Your task to perform on an android device: turn off location Image 0: 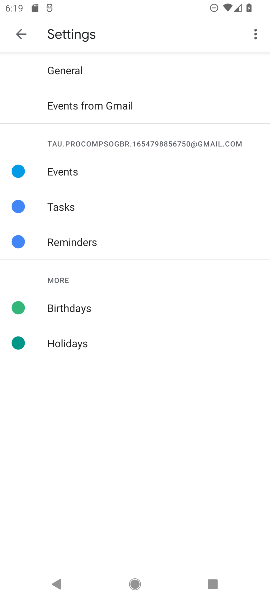
Step 0: press home button
Your task to perform on an android device: turn off location Image 1: 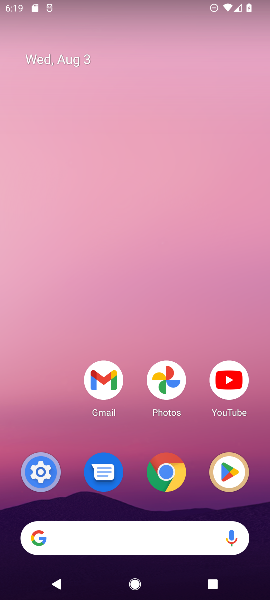
Step 1: drag from (193, 473) to (74, 37)
Your task to perform on an android device: turn off location Image 2: 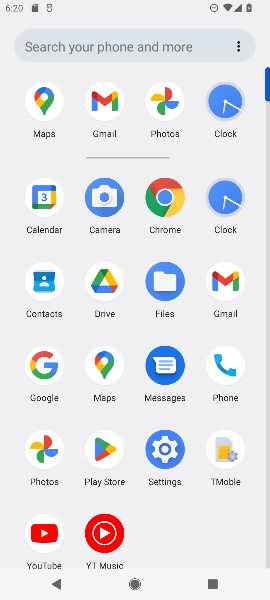
Step 2: click (165, 460)
Your task to perform on an android device: turn off location Image 3: 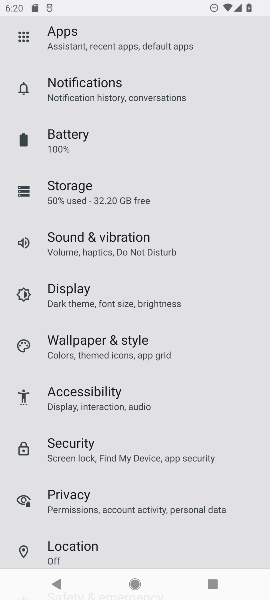
Step 3: click (99, 544)
Your task to perform on an android device: turn off location Image 4: 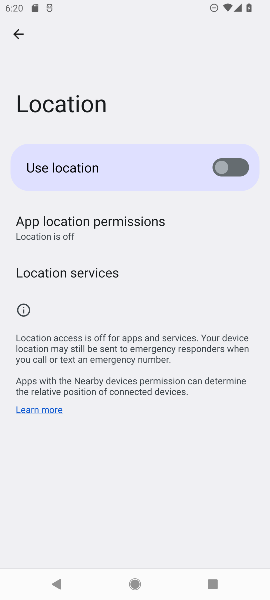
Step 4: task complete